Your task to perform on an android device: Open my contact list Image 0: 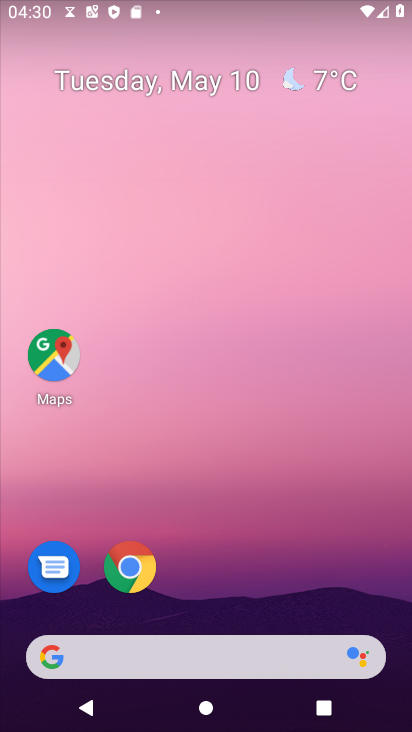
Step 0: drag from (218, 553) to (170, 53)
Your task to perform on an android device: Open my contact list Image 1: 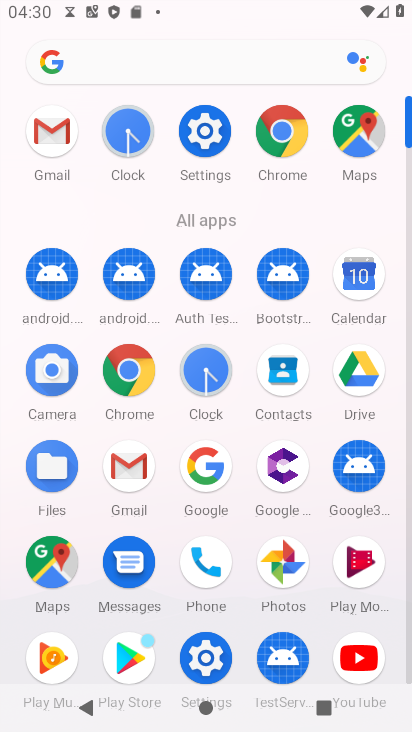
Step 1: click (281, 374)
Your task to perform on an android device: Open my contact list Image 2: 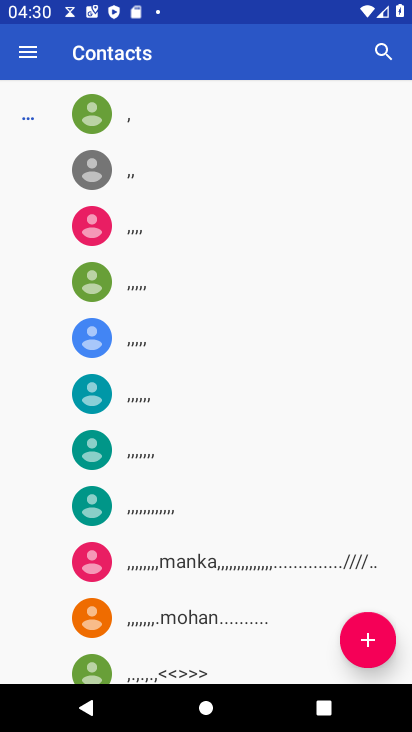
Step 2: task complete